Your task to perform on an android device: visit the assistant section in the google photos Image 0: 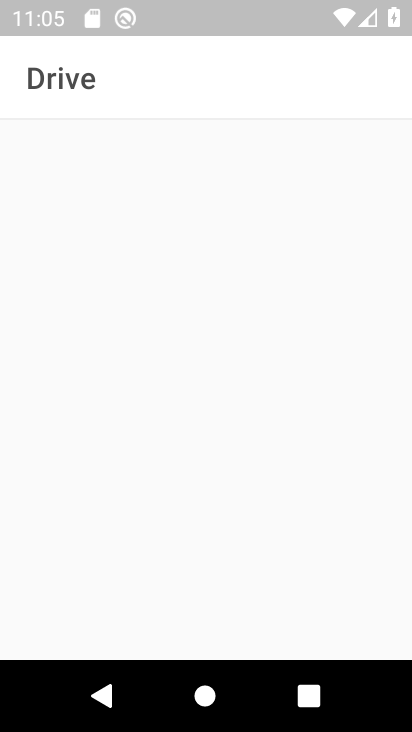
Step 0: press home button
Your task to perform on an android device: visit the assistant section in the google photos Image 1: 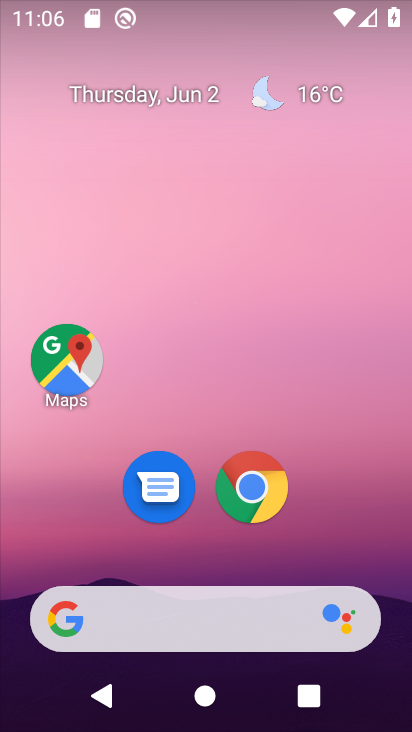
Step 1: drag from (341, 523) to (218, 87)
Your task to perform on an android device: visit the assistant section in the google photos Image 2: 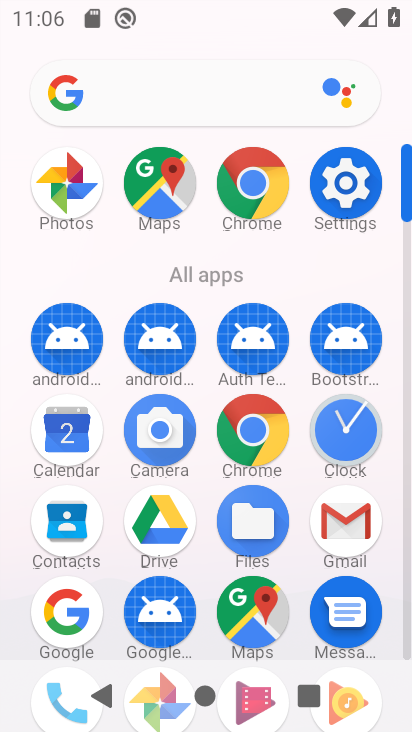
Step 2: click (67, 182)
Your task to perform on an android device: visit the assistant section in the google photos Image 3: 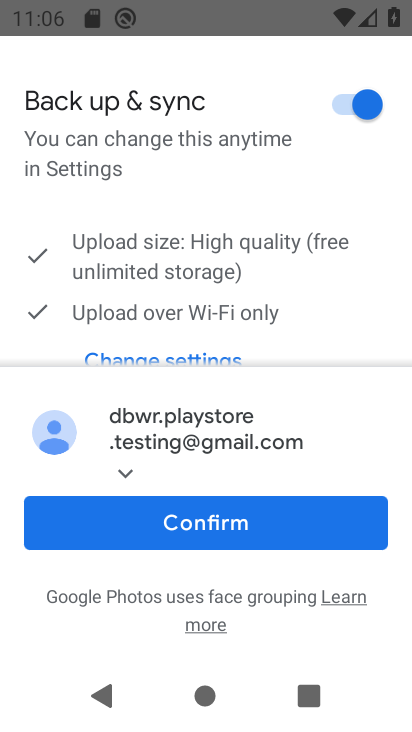
Step 3: click (196, 519)
Your task to perform on an android device: visit the assistant section in the google photos Image 4: 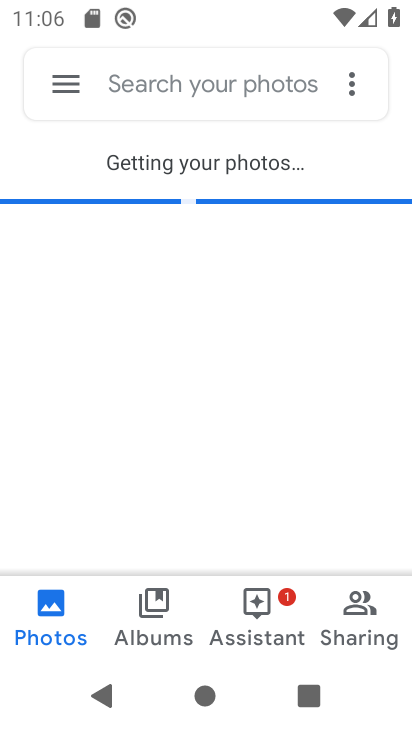
Step 4: click (259, 599)
Your task to perform on an android device: visit the assistant section in the google photos Image 5: 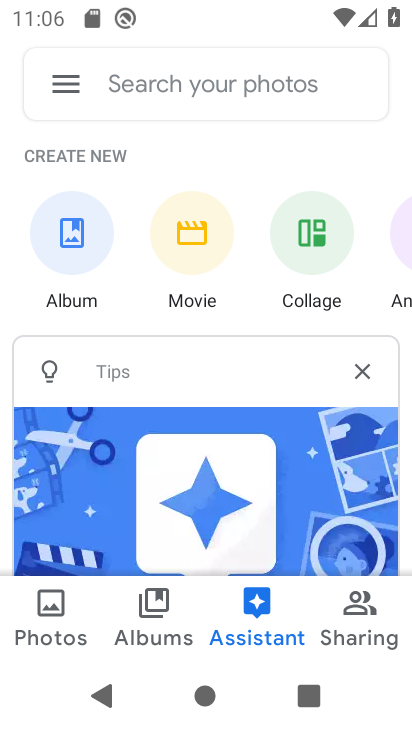
Step 5: task complete